Your task to perform on an android device: open wifi settings Image 0: 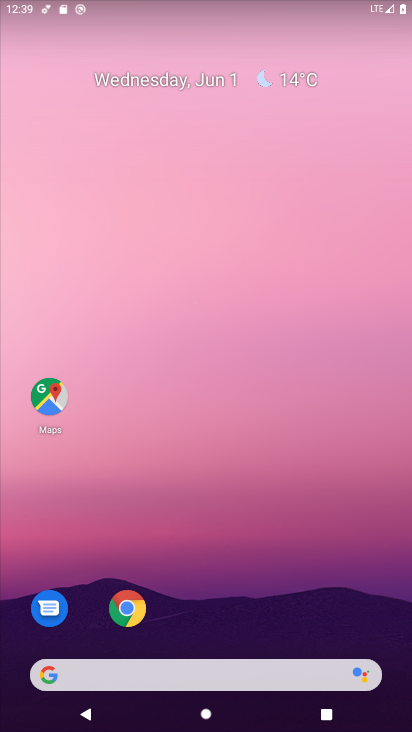
Step 0: drag from (215, 634) to (300, 243)
Your task to perform on an android device: open wifi settings Image 1: 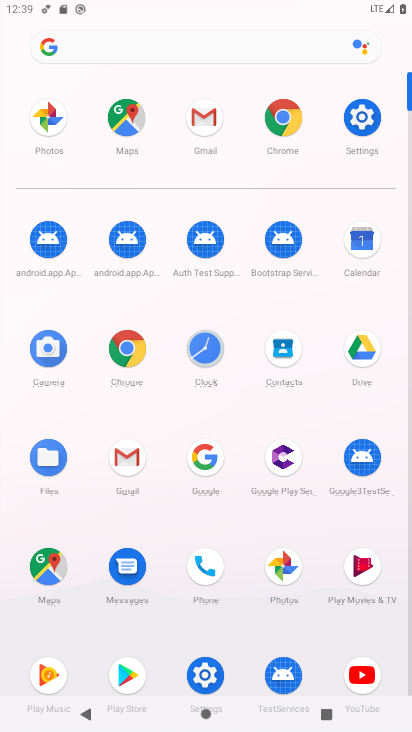
Step 1: click (363, 135)
Your task to perform on an android device: open wifi settings Image 2: 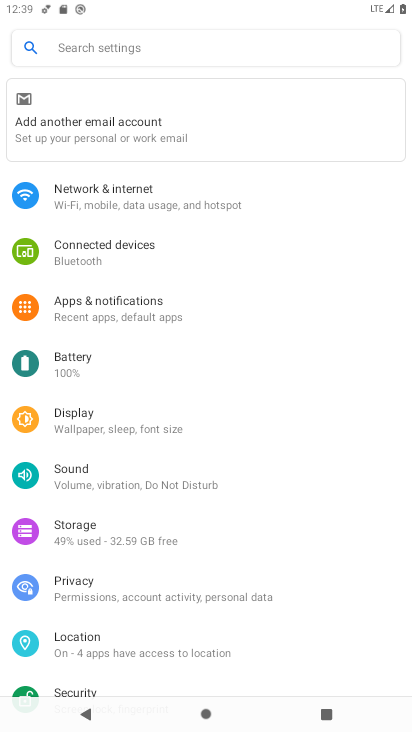
Step 2: click (167, 199)
Your task to perform on an android device: open wifi settings Image 3: 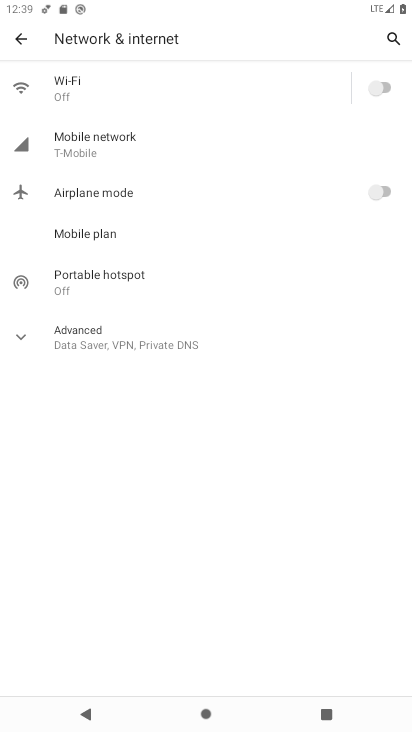
Step 3: click (113, 82)
Your task to perform on an android device: open wifi settings Image 4: 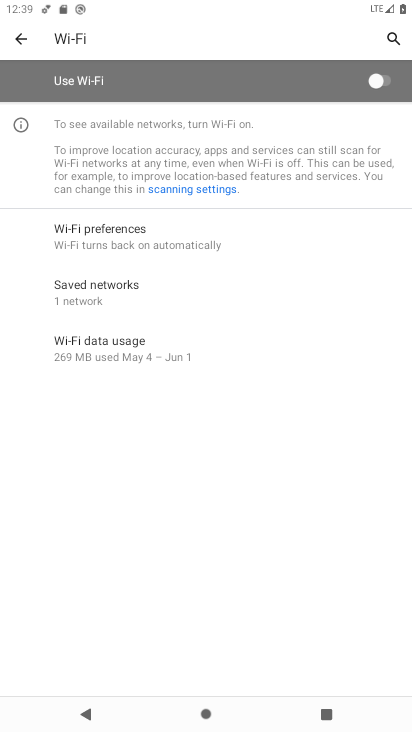
Step 4: task complete